Your task to perform on an android device: Turn off the flashlight Image 0: 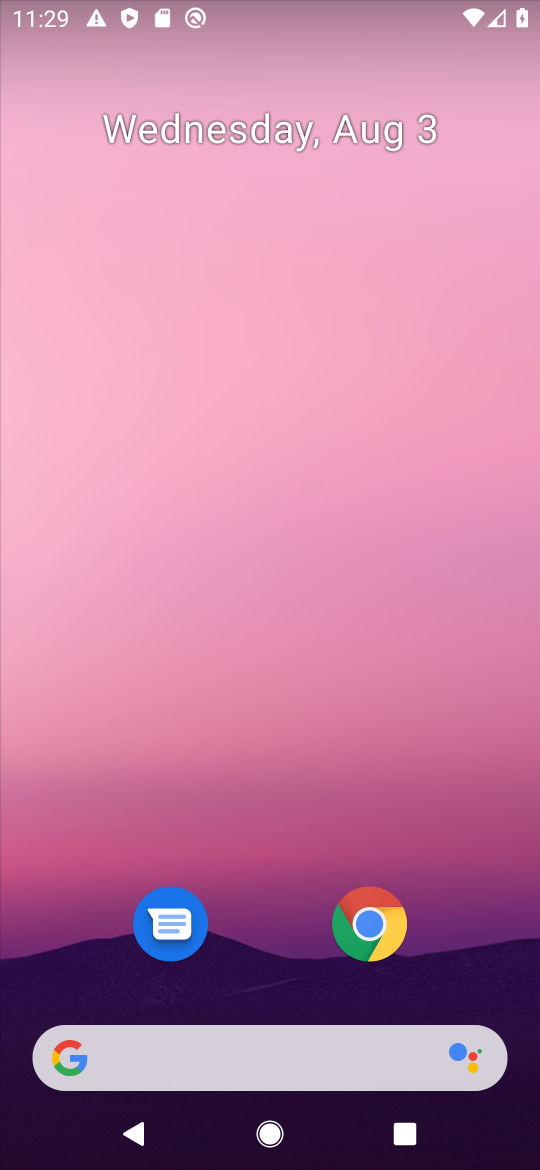
Step 0: click (502, 526)
Your task to perform on an android device: Turn off the flashlight Image 1: 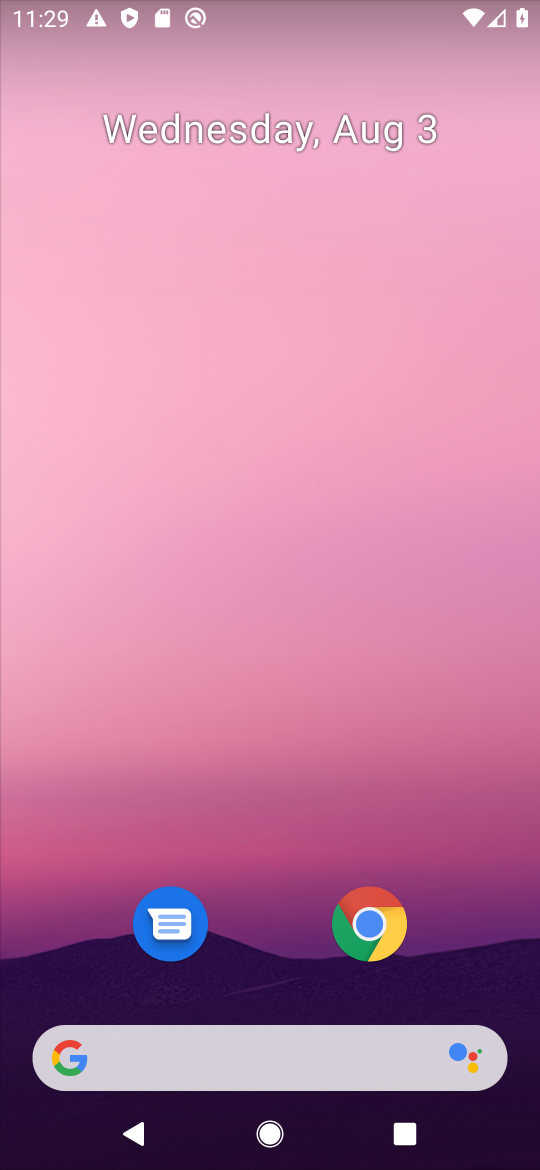
Step 1: task complete